Your task to perform on an android device: Show me productivity apps on the Play Store Image 0: 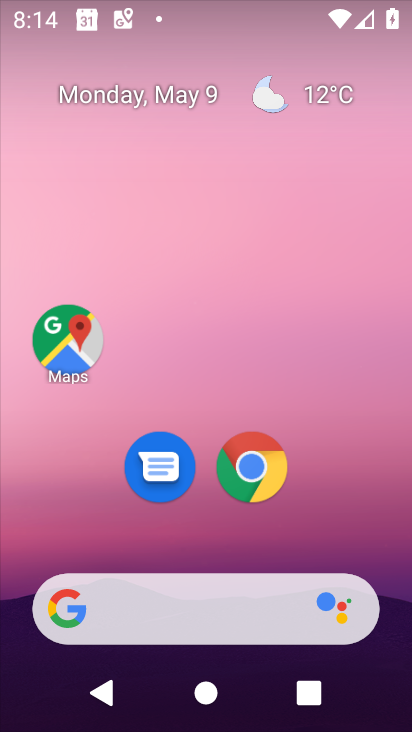
Step 0: drag from (367, 563) to (349, 0)
Your task to perform on an android device: Show me productivity apps on the Play Store Image 1: 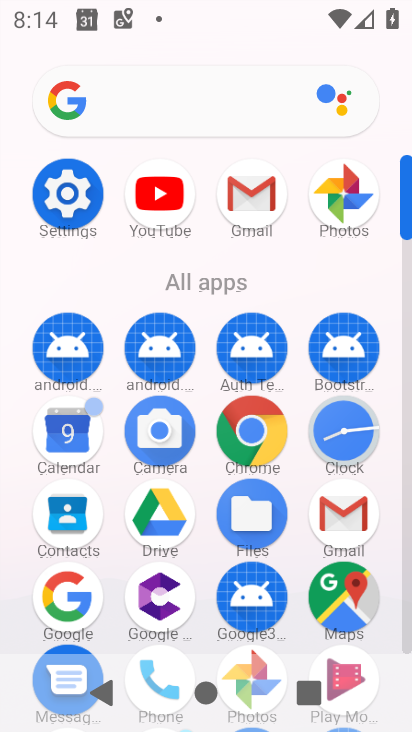
Step 1: drag from (406, 550) to (406, 512)
Your task to perform on an android device: Show me productivity apps on the Play Store Image 2: 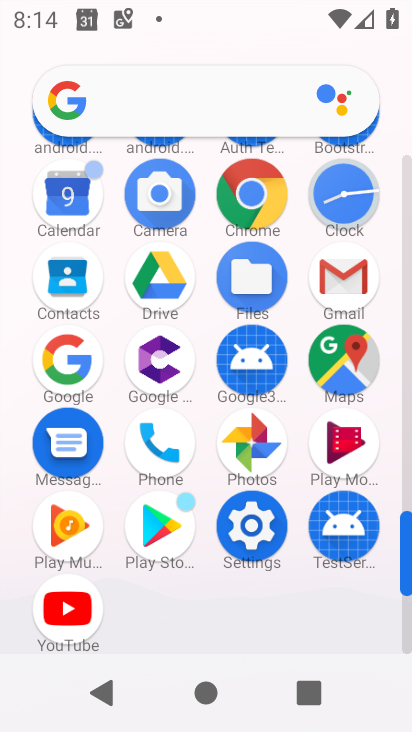
Step 2: click (153, 541)
Your task to perform on an android device: Show me productivity apps on the Play Store Image 3: 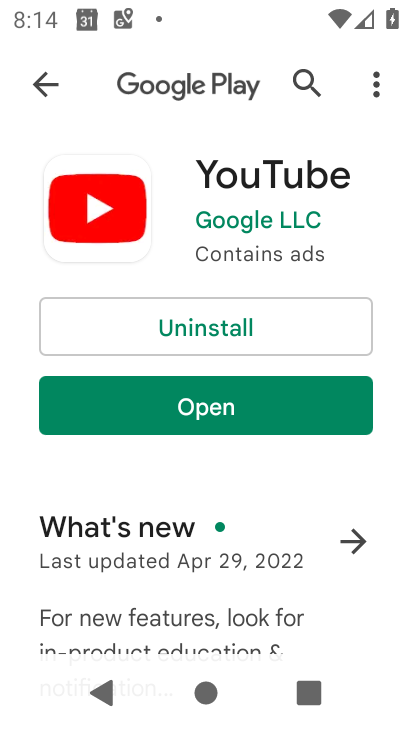
Step 3: click (42, 85)
Your task to perform on an android device: Show me productivity apps on the Play Store Image 4: 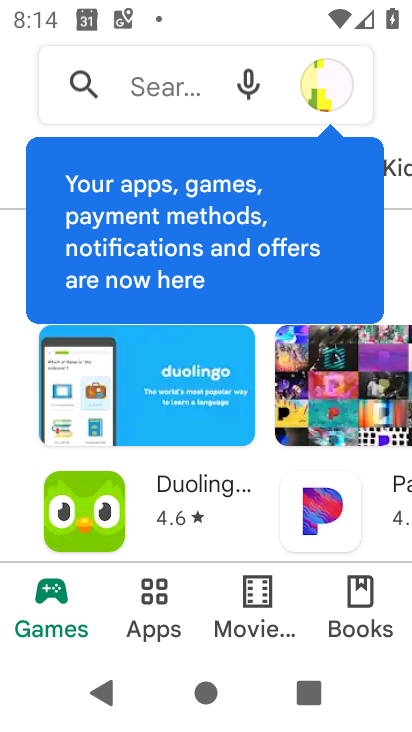
Step 4: click (130, 579)
Your task to perform on an android device: Show me productivity apps on the Play Store Image 5: 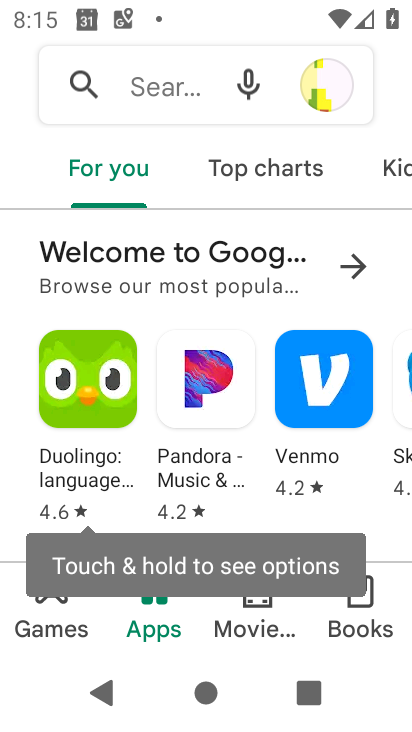
Step 5: drag from (307, 178) to (32, 199)
Your task to perform on an android device: Show me productivity apps on the Play Store Image 6: 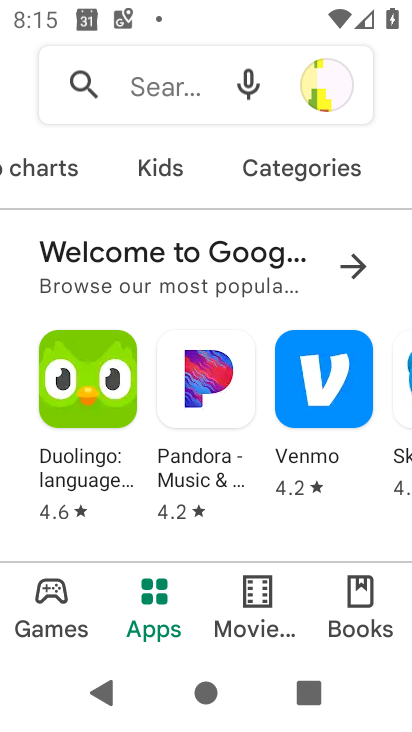
Step 6: click (232, 164)
Your task to perform on an android device: Show me productivity apps on the Play Store Image 7: 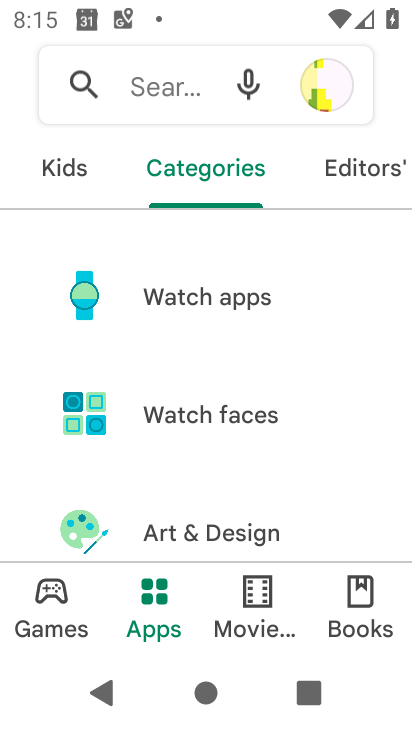
Step 7: drag from (191, 417) to (194, 32)
Your task to perform on an android device: Show me productivity apps on the Play Store Image 8: 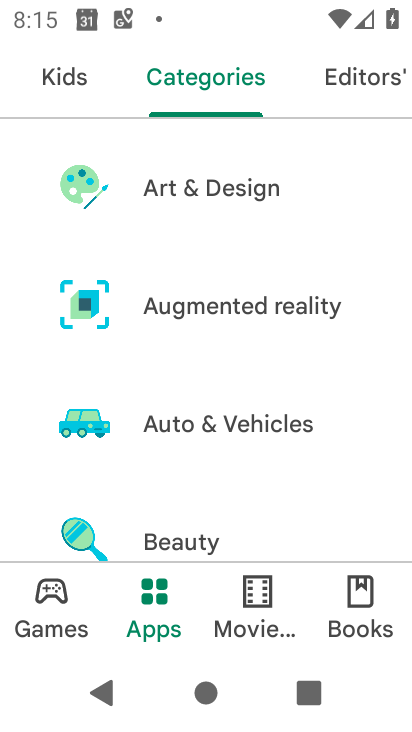
Step 8: drag from (179, 374) to (174, 62)
Your task to perform on an android device: Show me productivity apps on the Play Store Image 9: 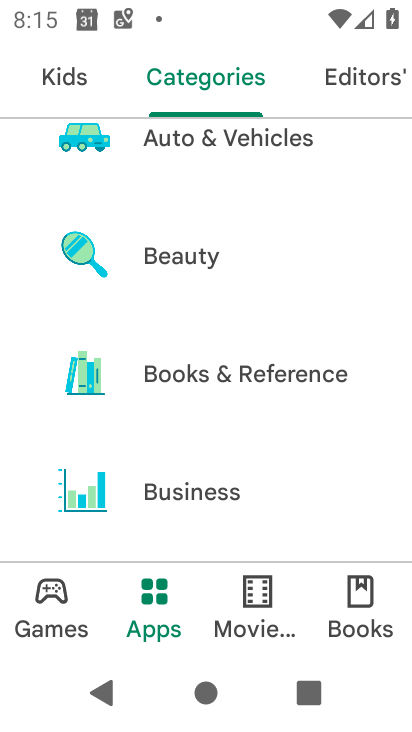
Step 9: drag from (194, 425) to (180, 104)
Your task to perform on an android device: Show me productivity apps on the Play Store Image 10: 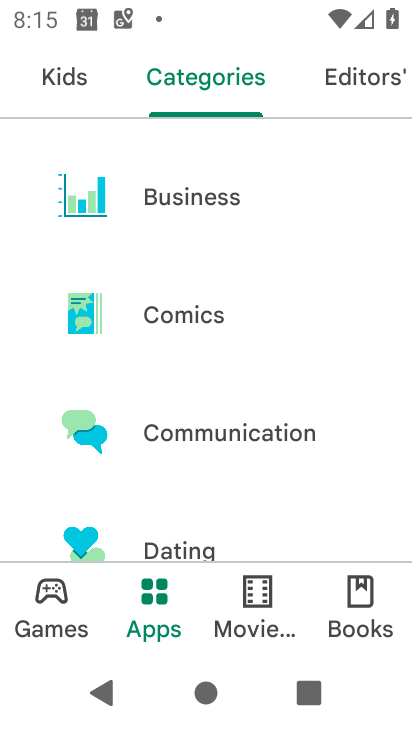
Step 10: drag from (228, 421) to (205, 163)
Your task to perform on an android device: Show me productivity apps on the Play Store Image 11: 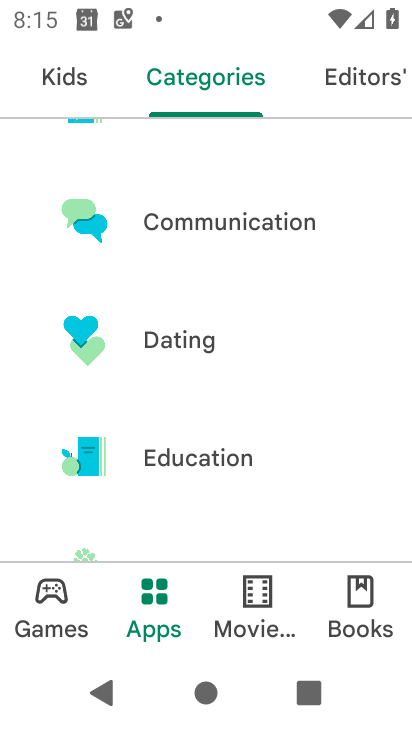
Step 11: drag from (210, 490) to (184, 159)
Your task to perform on an android device: Show me productivity apps on the Play Store Image 12: 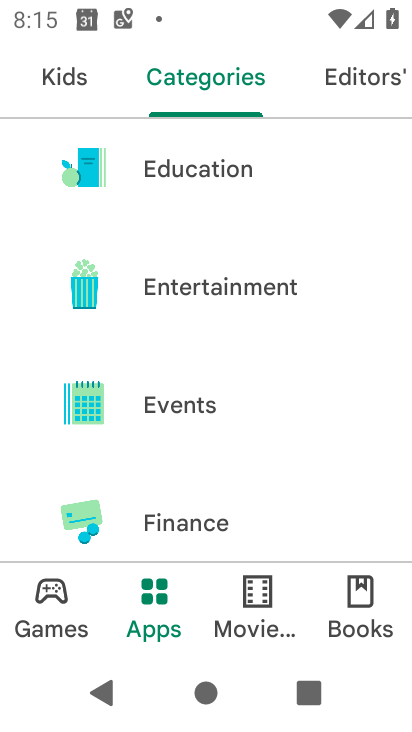
Step 12: drag from (197, 467) to (173, 136)
Your task to perform on an android device: Show me productivity apps on the Play Store Image 13: 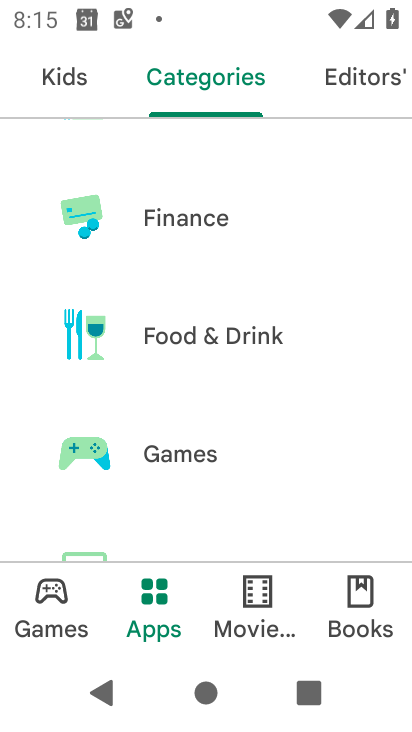
Step 13: drag from (195, 425) to (180, 175)
Your task to perform on an android device: Show me productivity apps on the Play Store Image 14: 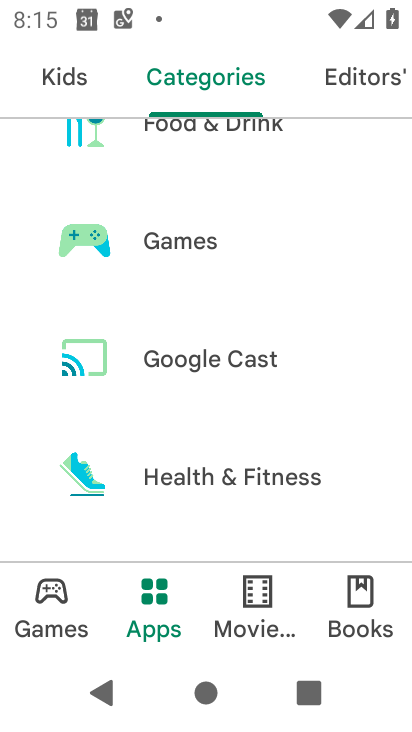
Step 14: drag from (170, 452) to (158, 174)
Your task to perform on an android device: Show me productivity apps on the Play Store Image 15: 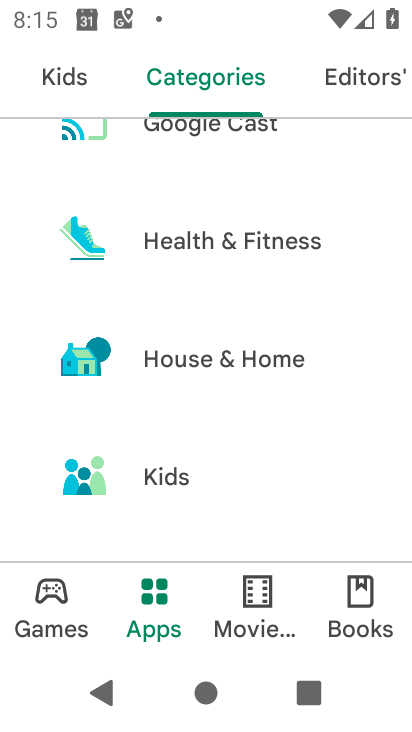
Step 15: drag from (171, 449) to (167, 163)
Your task to perform on an android device: Show me productivity apps on the Play Store Image 16: 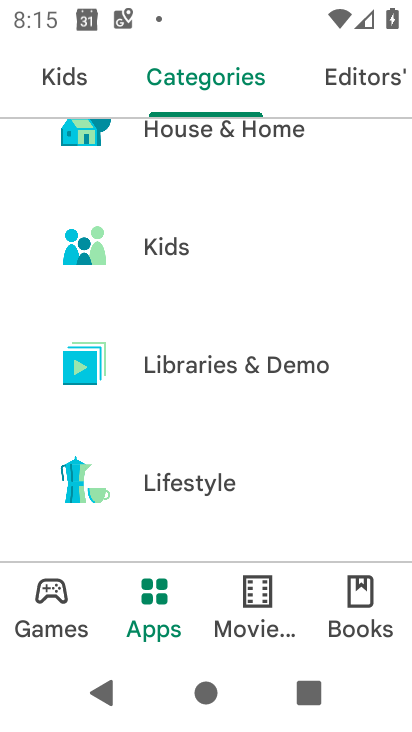
Step 16: drag from (187, 423) to (179, 149)
Your task to perform on an android device: Show me productivity apps on the Play Store Image 17: 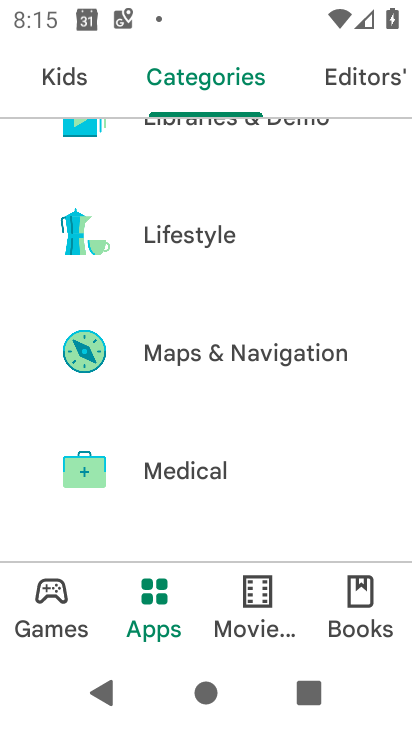
Step 17: drag from (216, 424) to (196, 154)
Your task to perform on an android device: Show me productivity apps on the Play Store Image 18: 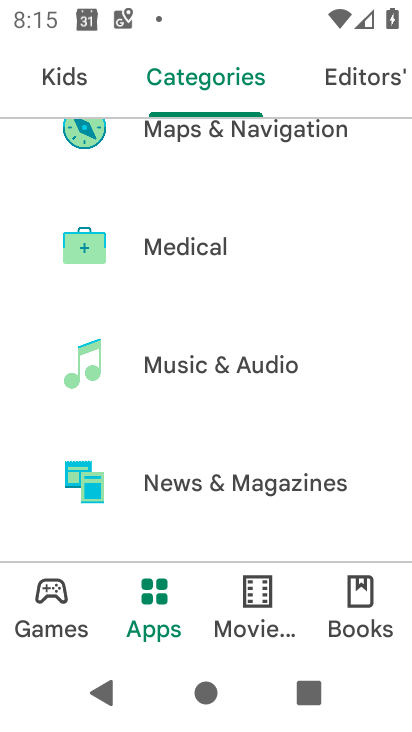
Step 18: drag from (218, 411) to (191, 136)
Your task to perform on an android device: Show me productivity apps on the Play Store Image 19: 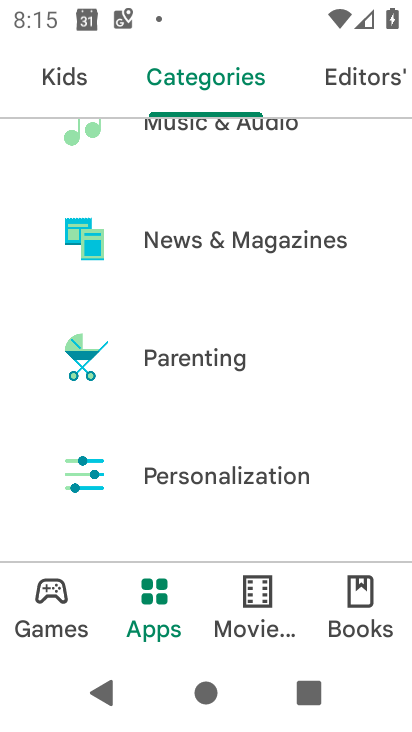
Step 19: drag from (224, 402) to (217, 53)
Your task to perform on an android device: Show me productivity apps on the Play Store Image 20: 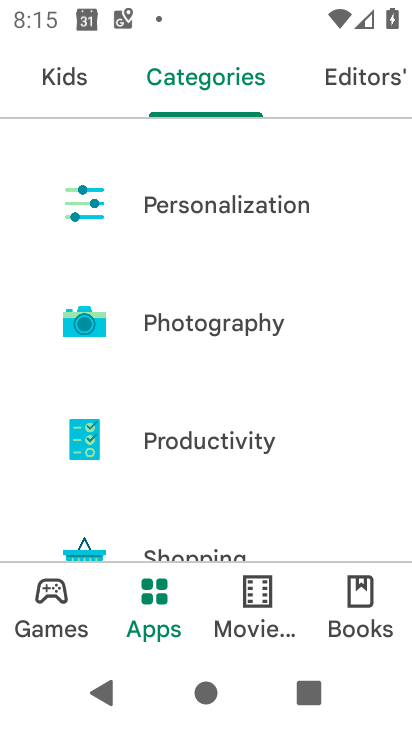
Step 20: click (198, 453)
Your task to perform on an android device: Show me productivity apps on the Play Store Image 21: 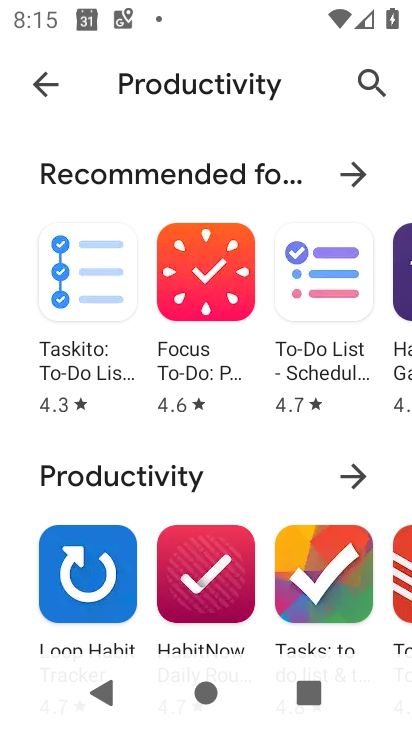
Step 21: task complete